Your task to perform on an android device: change keyboard looks Image 0: 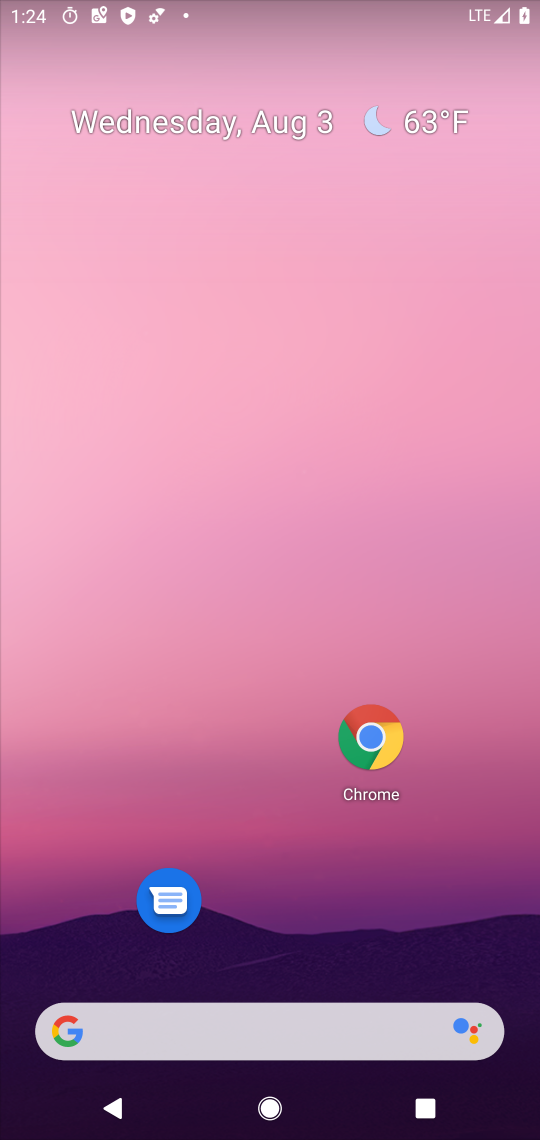
Step 0: drag from (350, 838) to (333, 167)
Your task to perform on an android device: change keyboard looks Image 1: 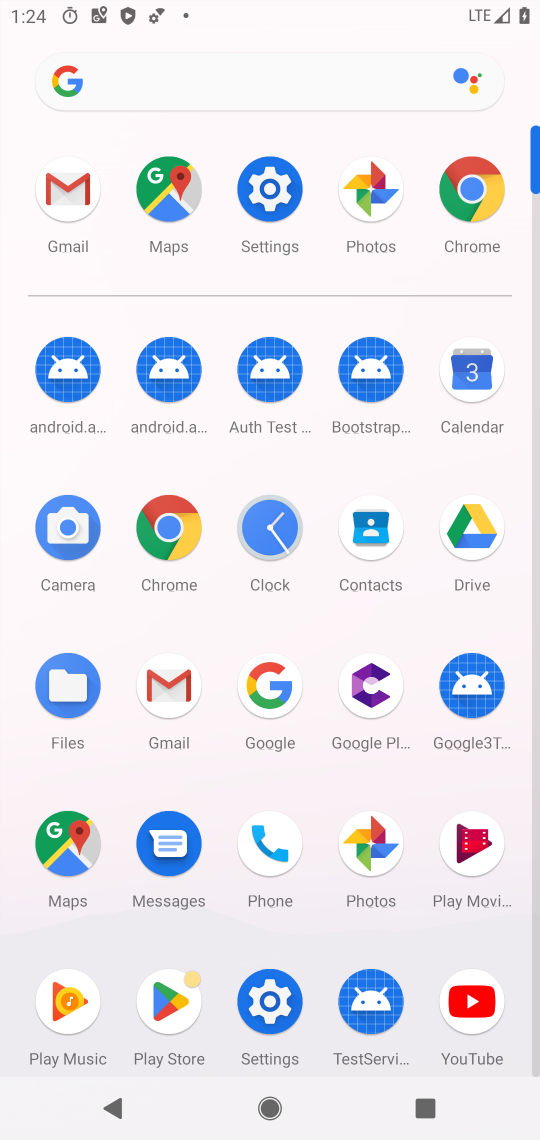
Step 1: click (266, 197)
Your task to perform on an android device: change keyboard looks Image 2: 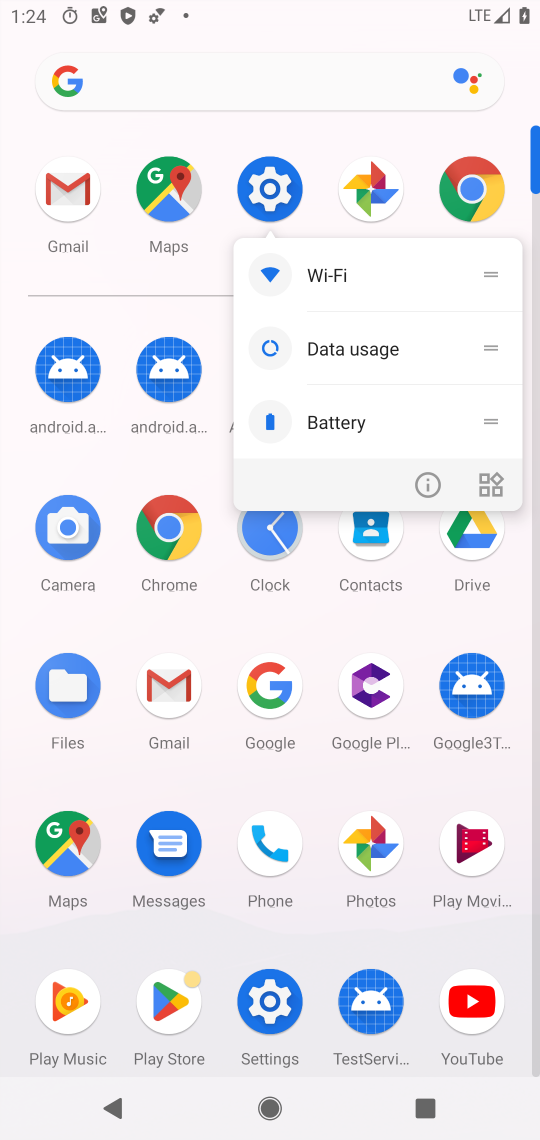
Step 2: click (276, 197)
Your task to perform on an android device: change keyboard looks Image 3: 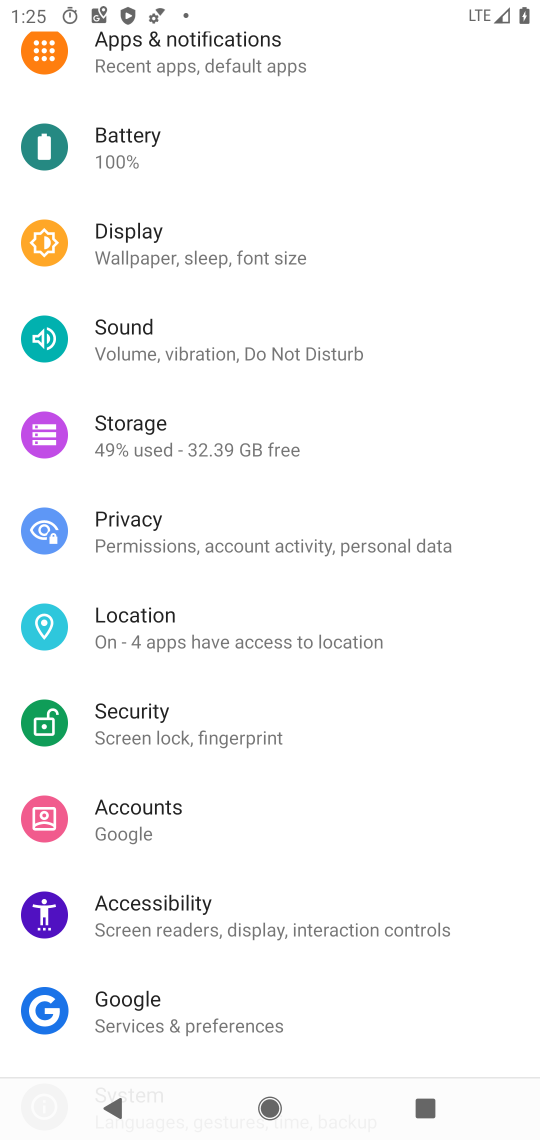
Step 3: drag from (304, 162) to (324, 739)
Your task to perform on an android device: change keyboard looks Image 4: 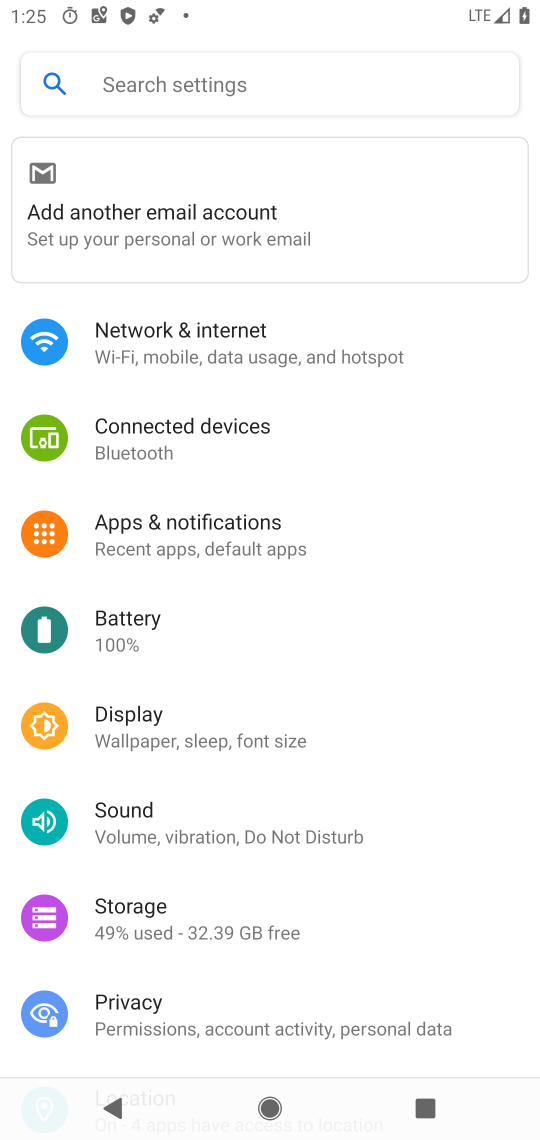
Step 4: drag from (434, 876) to (433, 228)
Your task to perform on an android device: change keyboard looks Image 5: 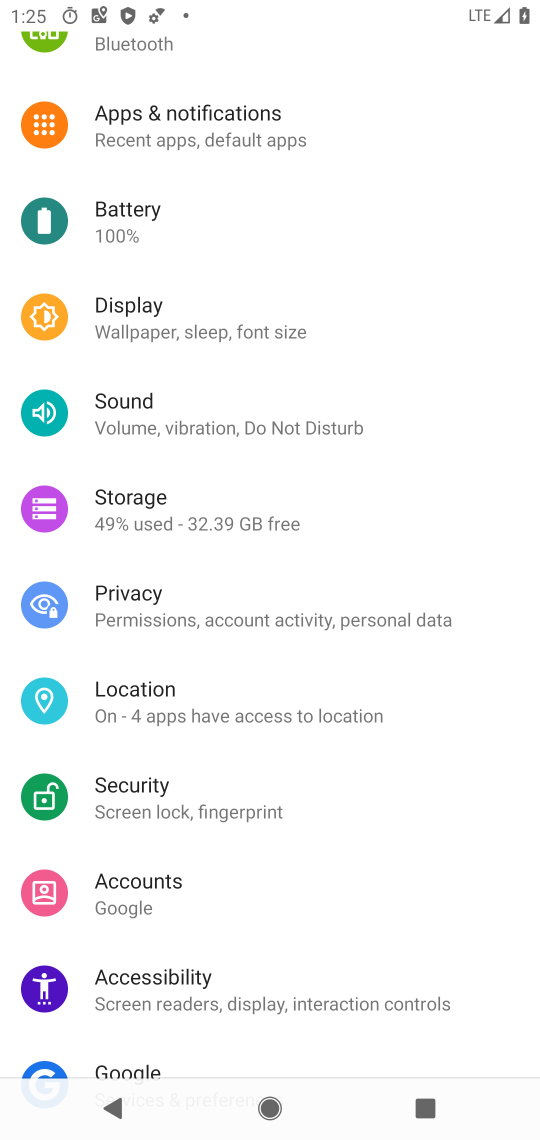
Step 5: drag from (413, 870) to (423, 299)
Your task to perform on an android device: change keyboard looks Image 6: 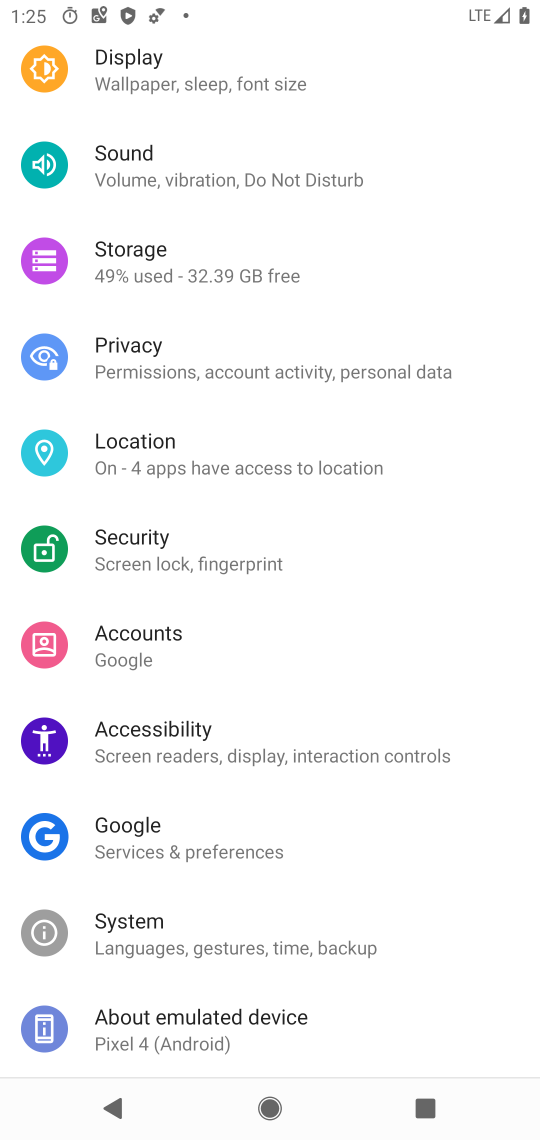
Step 6: click (169, 939)
Your task to perform on an android device: change keyboard looks Image 7: 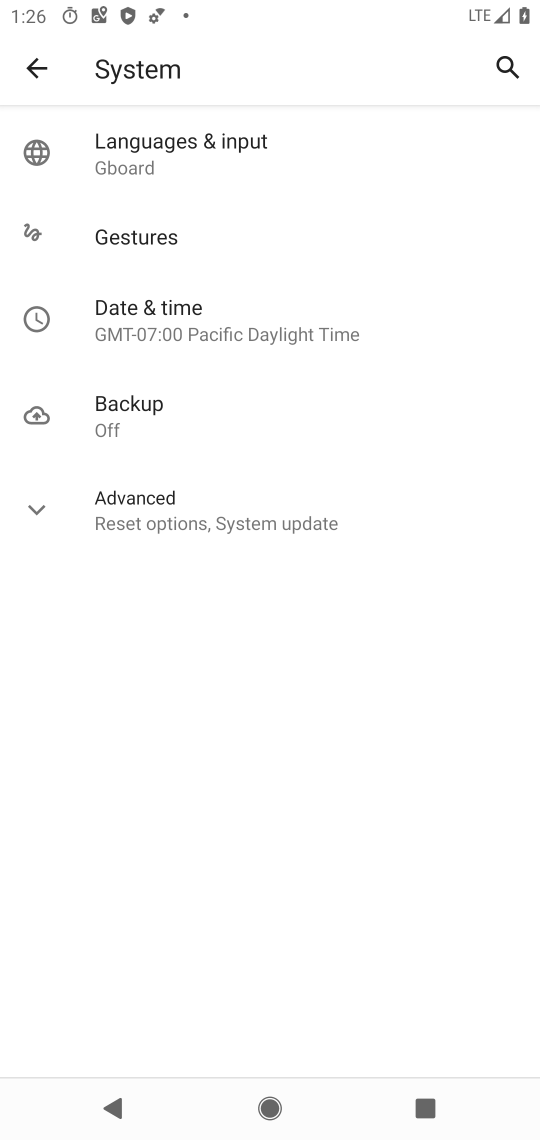
Step 7: click (163, 134)
Your task to perform on an android device: change keyboard looks Image 8: 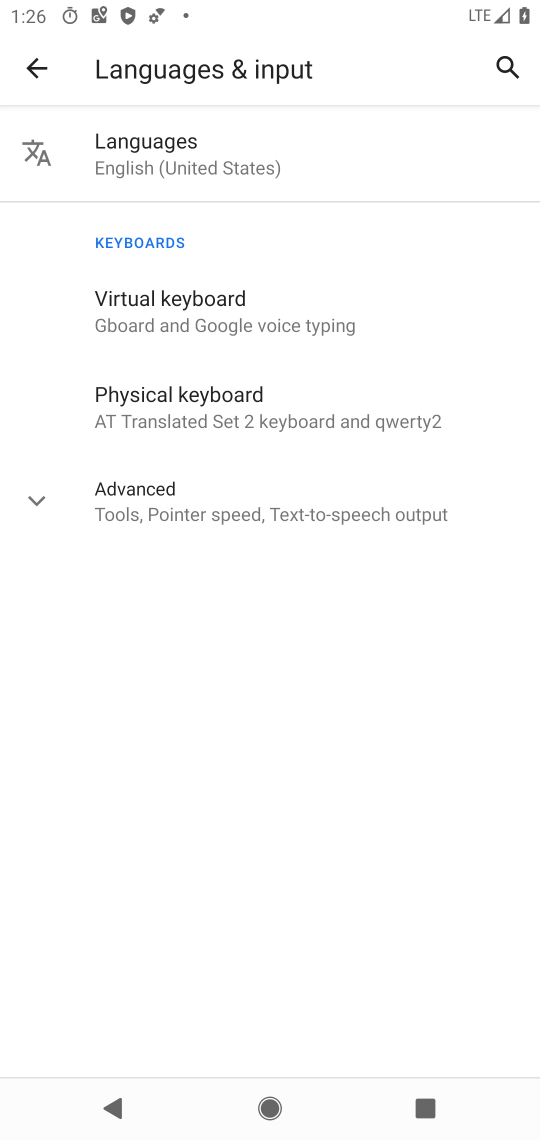
Step 8: click (198, 303)
Your task to perform on an android device: change keyboard looks Image 9: 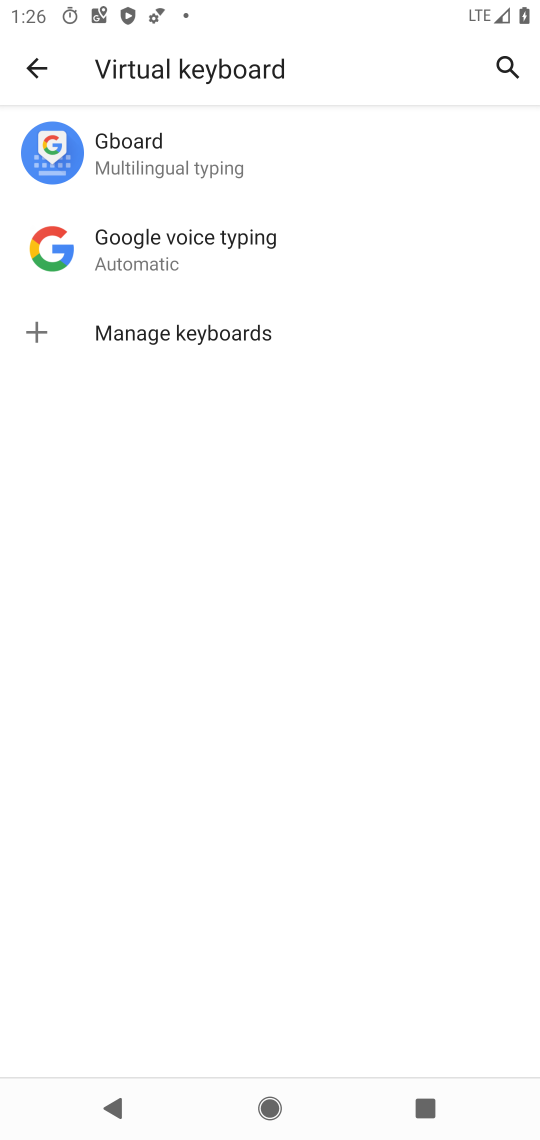
Step 9: click (161, 158)
Your task to perform on an android device: change keyboard looks Image 10: 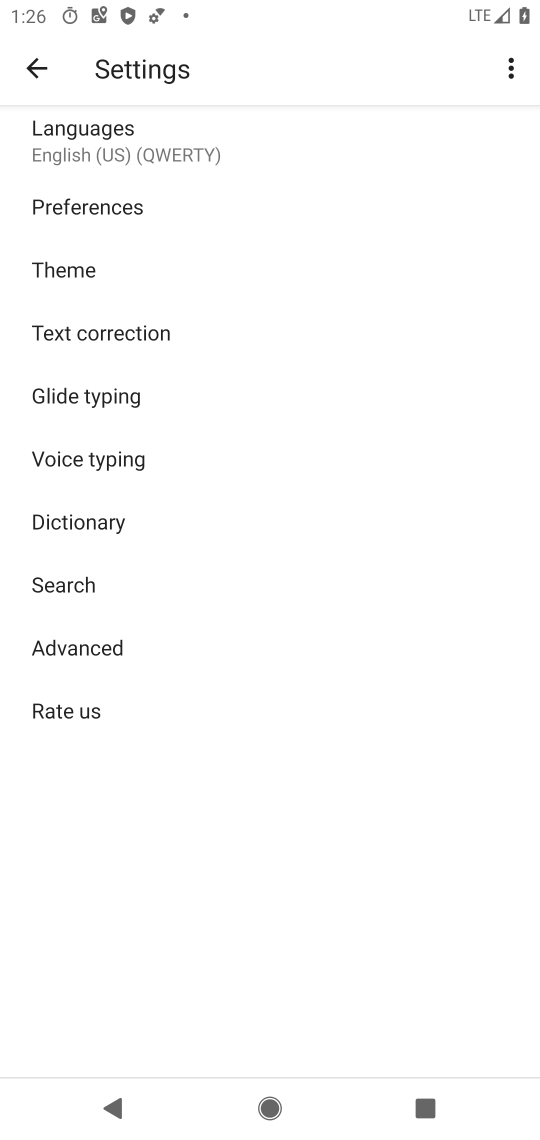
Step 10: click (77, 271)
Your task to perform on an android device: change keyboard looks Image 11: 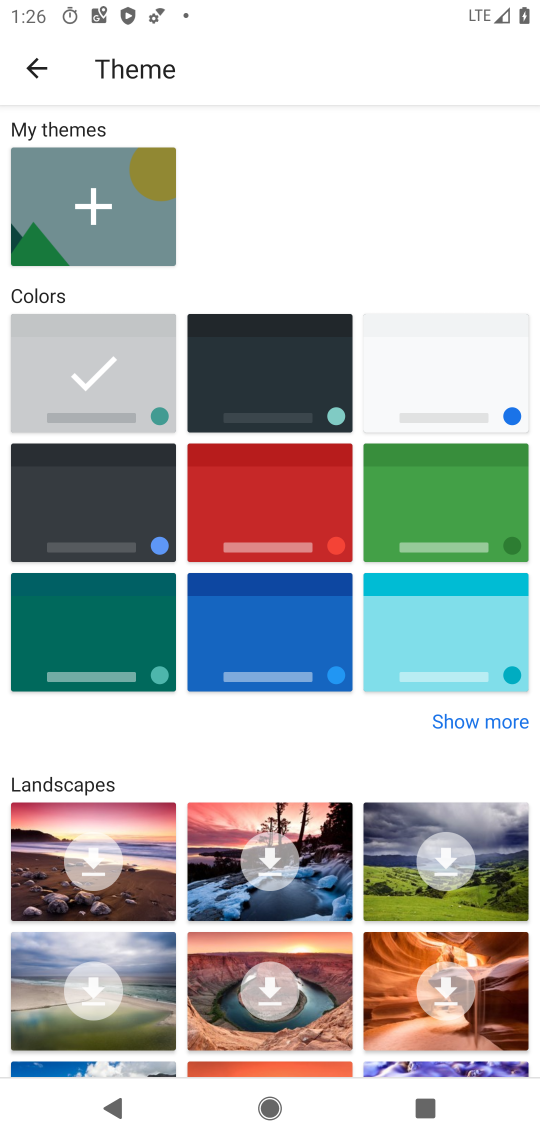
Step 11: click (487, 384)
Your task to perform on an android device: change keyboard looks Image 12: 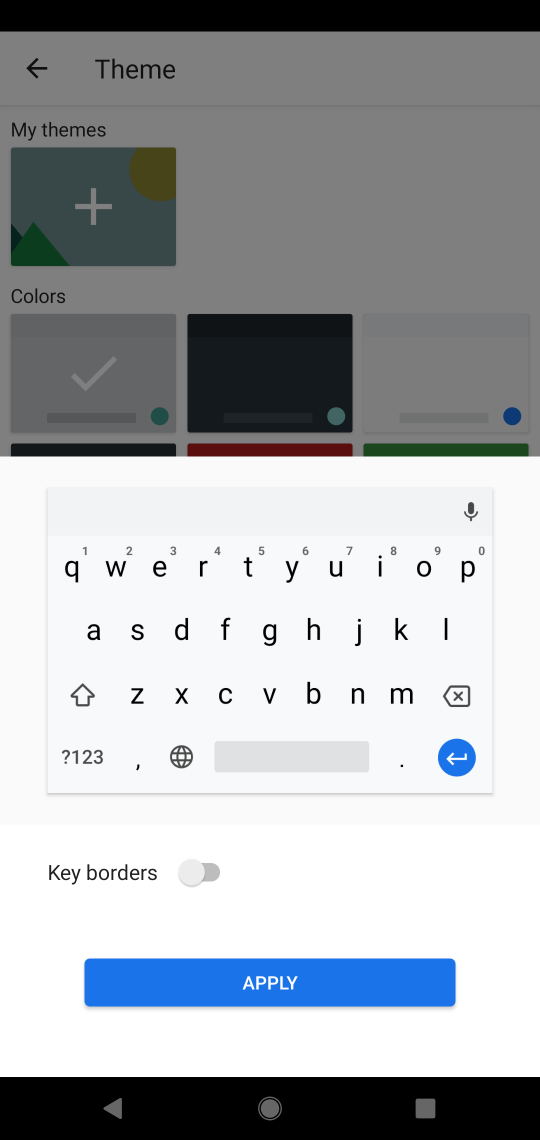
Step 12: click (295, 988)
Your task to perform on an android device: change keyboard looks Image 13: 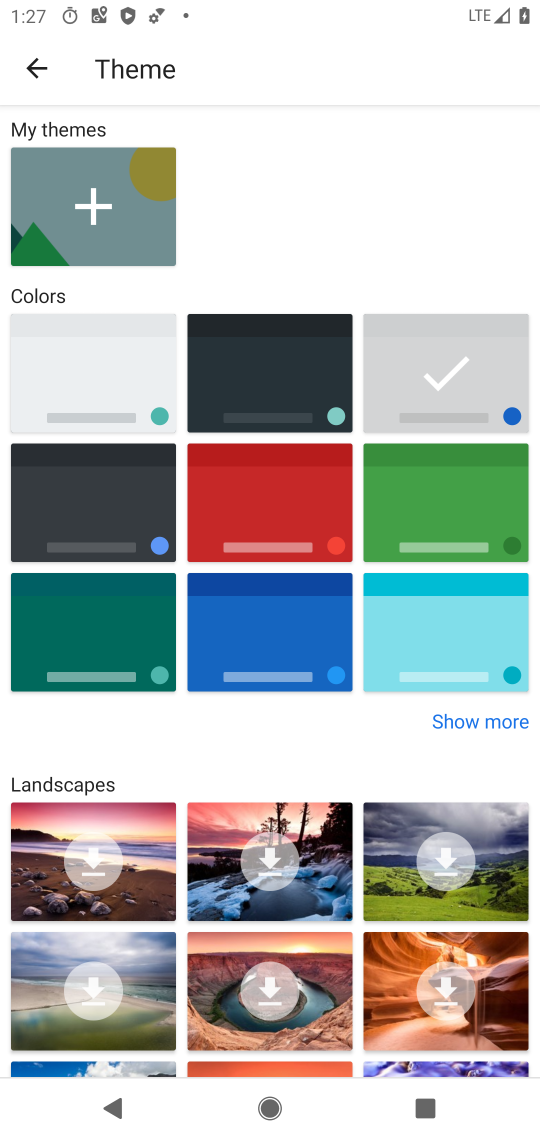
Step 13: task complete